Your task to perform on an android device: Open calendar and show me the fourth week of next month Image 0: 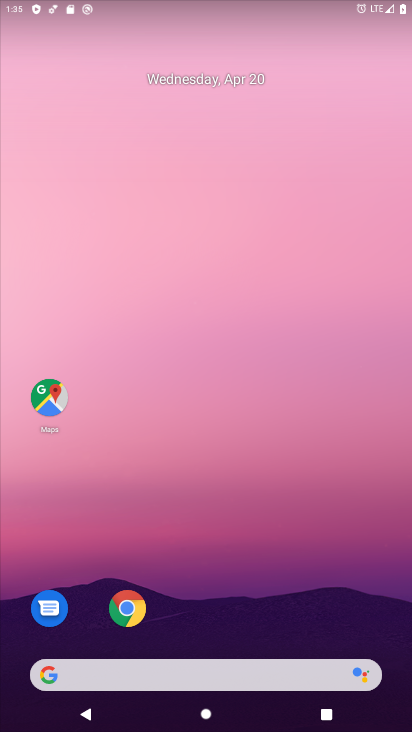
Step 0: drag from (213, 727) to (186, 116)
Your task to perform on an android device: Open calendar and show me the fourth week of next month Image 1: 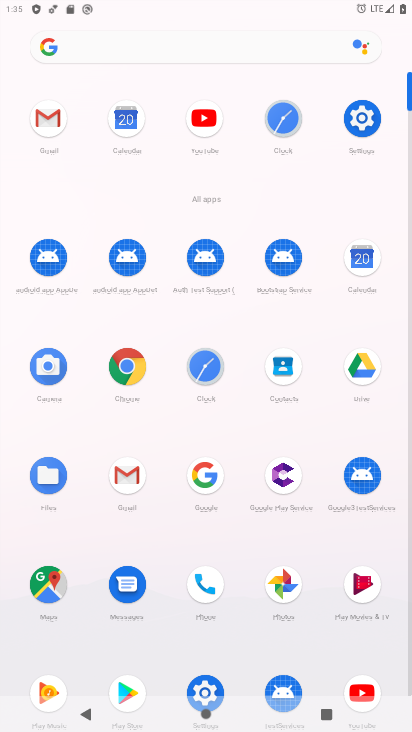
Step 1: click (360, 256)
Your task to perform on an android device: Open calendar and show me the fourth week of next month Image 2: 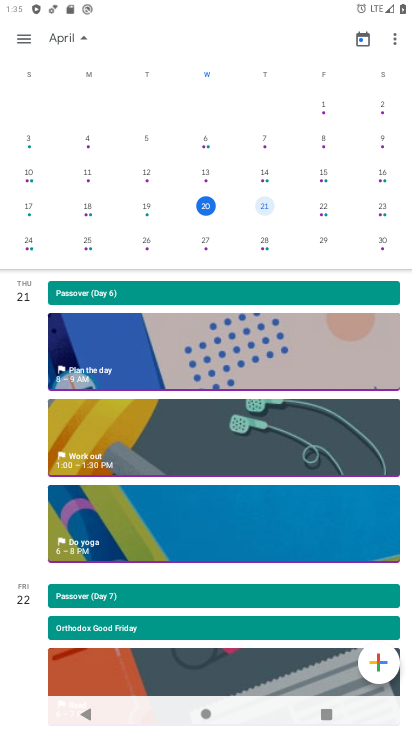
Step 2: drag from (356, 186) to (0, 200)
Your task to perform on an android device: Open calendar and show me the fourth week of next month Image 3: 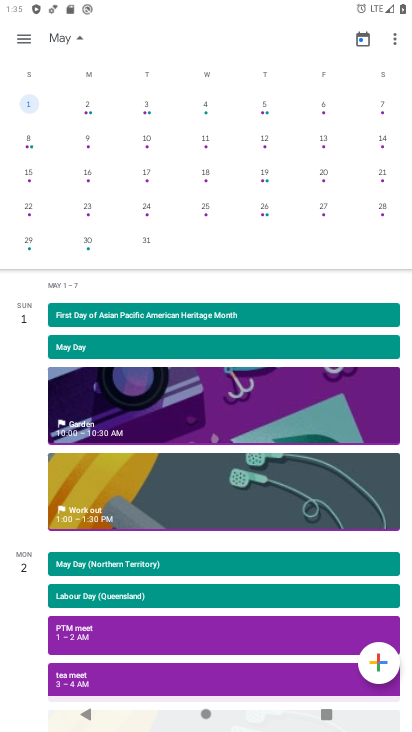
Step 3: click (87, 201)
Your task to perform on an android device: Open calendar and show me the fourth week of next month Image 4: 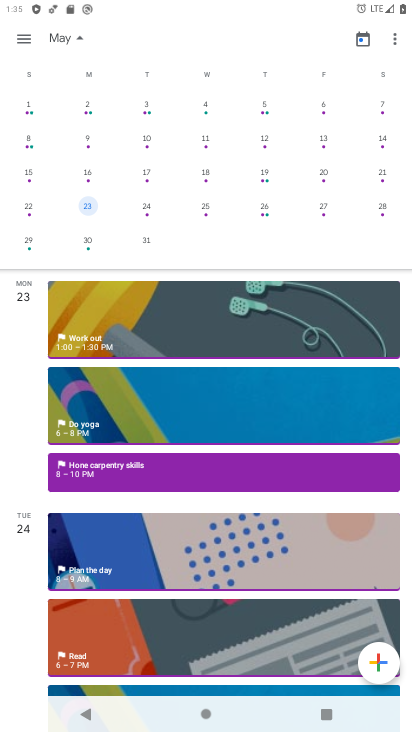
Step 4: task complete